Your task to perform on an android device: delete browsing data in the chrome app Image 0: 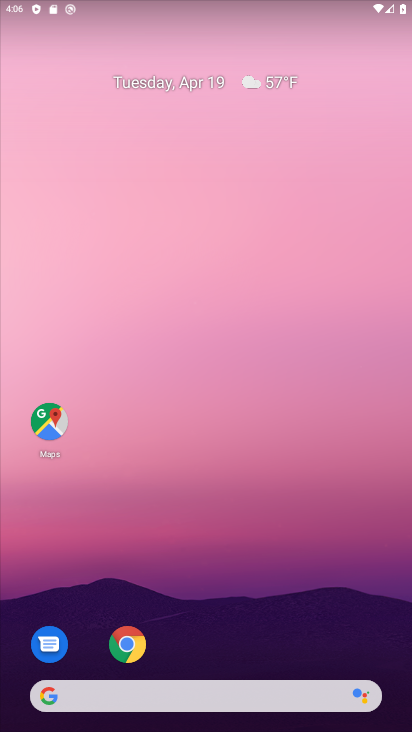
Step 0: drag from (243, 494) to (364, 336)
Your task to perform on an android device: delete browsing data in the chrome app Image 1: 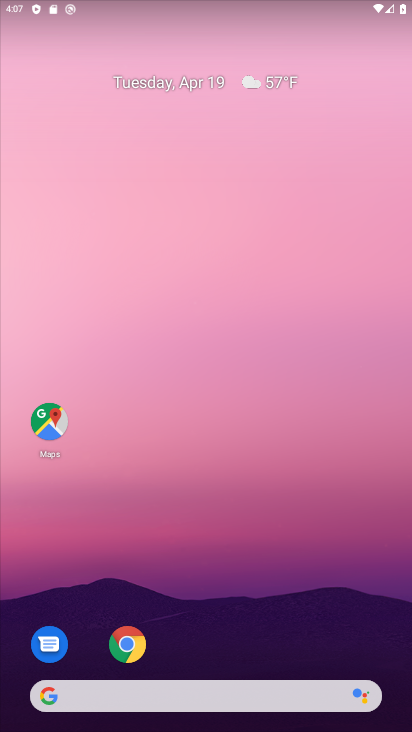
Step 1: drag from (325, 409) to (386, 50)
Your task to perform on an android device: delete browsing data in the chrome app Image 2: 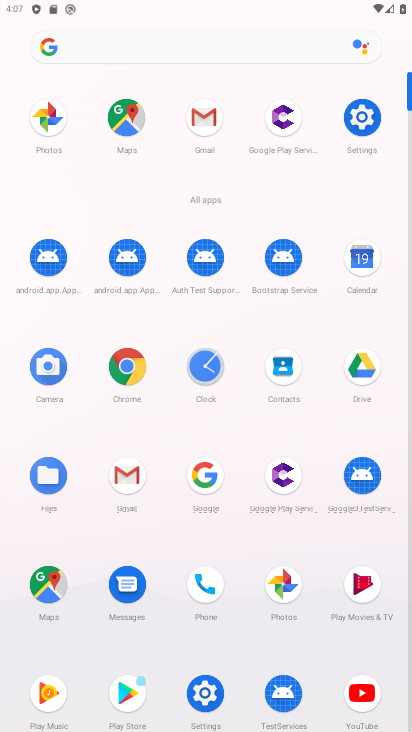
Step 2: click (130, 363)
Your task to perform on an android device: delete browsing data in the chrome app Image 3: 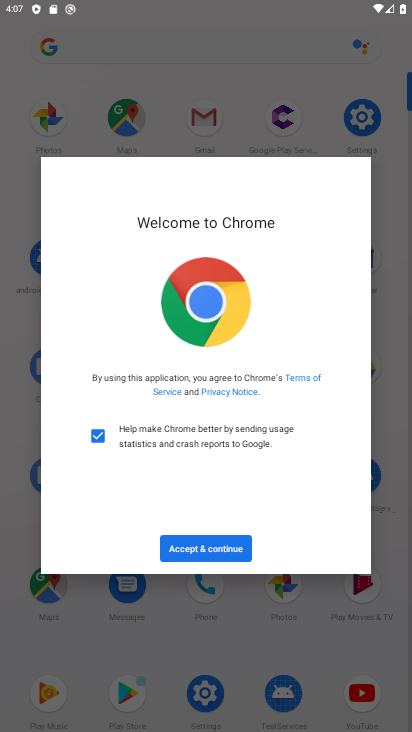
Step 3: click (189, 538)
Your task to perform on an android device: delete browsing data in the chrome app Image 4: 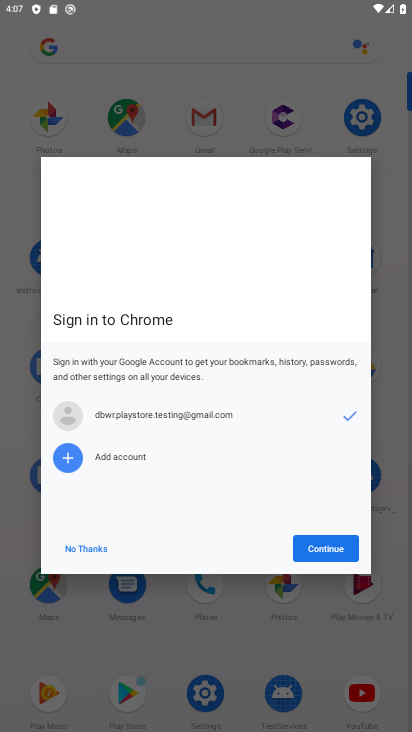
Step 4: click (98, 546)
Your task to perform on an android device: delete browsing data in the chrome app Image 5: 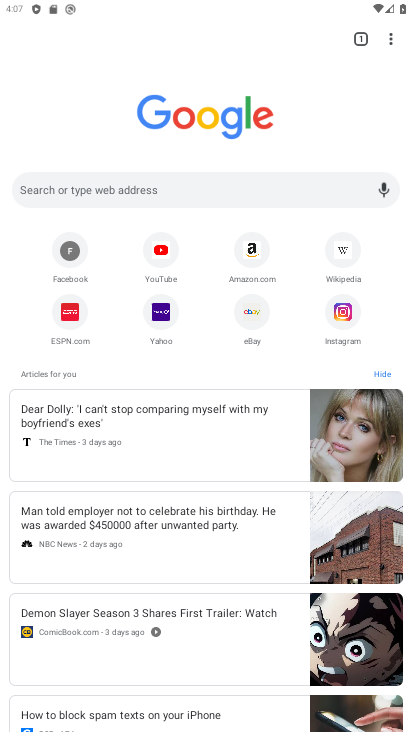
Step 5: click (389, 34)
Your task to perform on an android device: delete browsing data in the chrome app Image 6: 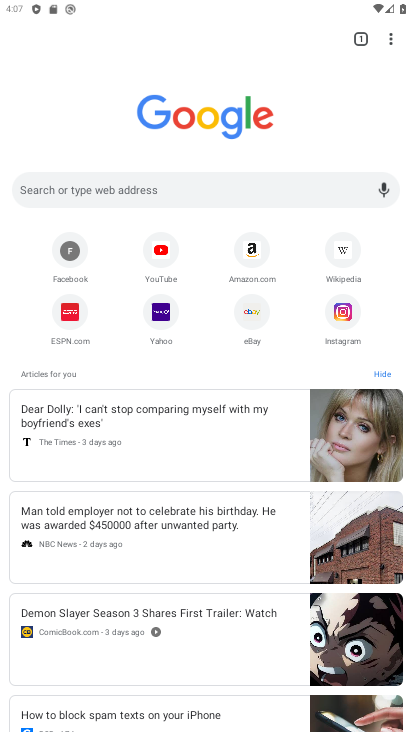
Step 6: click (390, 33)
Your task to perform on an android device: delete browsing data in the chrome app Image 7: 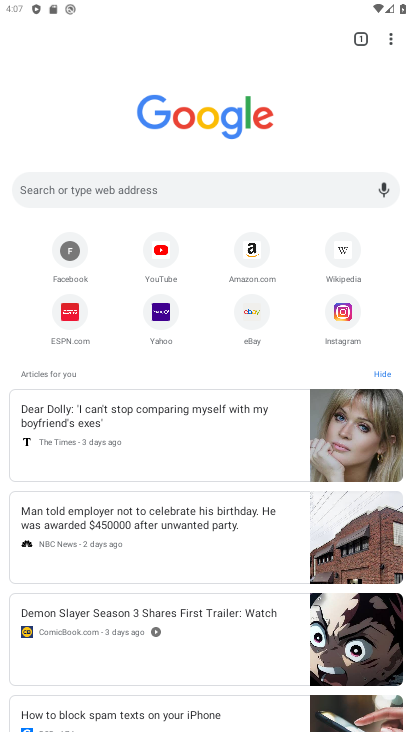
Step 7: click (390, 33)
Your task to perform on an android device: delete browsing data in the chrome app Image 8: 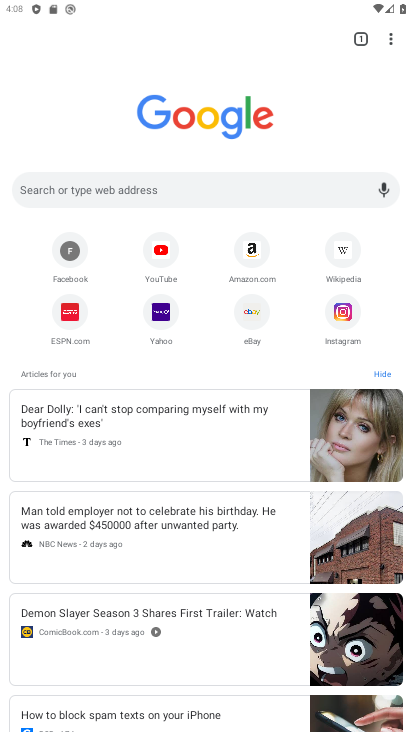
Step 8: click (390, 33)
Your task to perform on an android device: delete browsing data in the chrome app Image 9: 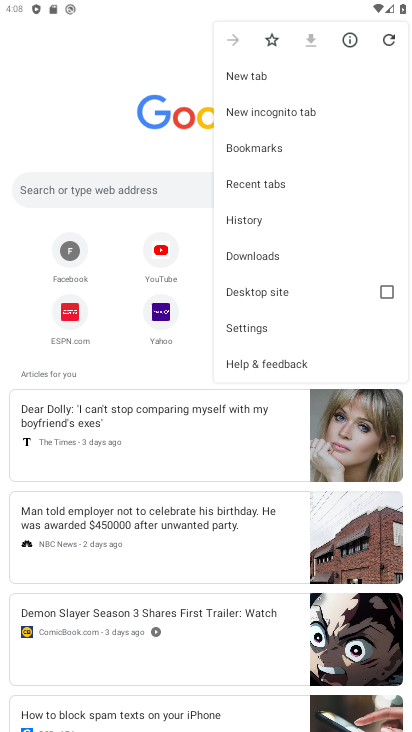
Step 9: click (249, 220)
Your task to perform on an android device: delete browsing data in the chrome app Image 10: 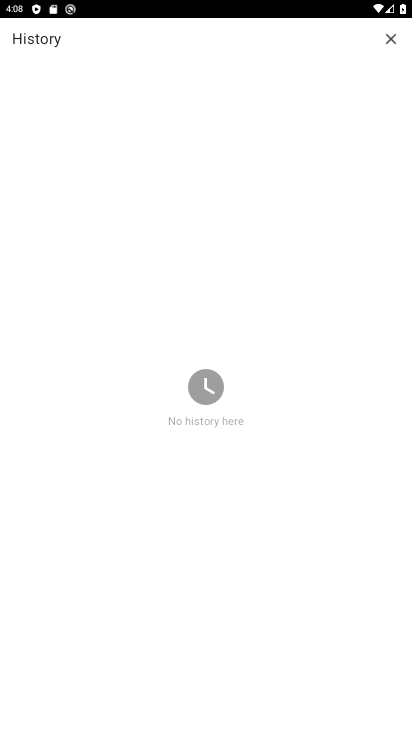
Step 10: task complete